Your task to perform on an android device: remove spam from my inbox in the gmail app Image 0: 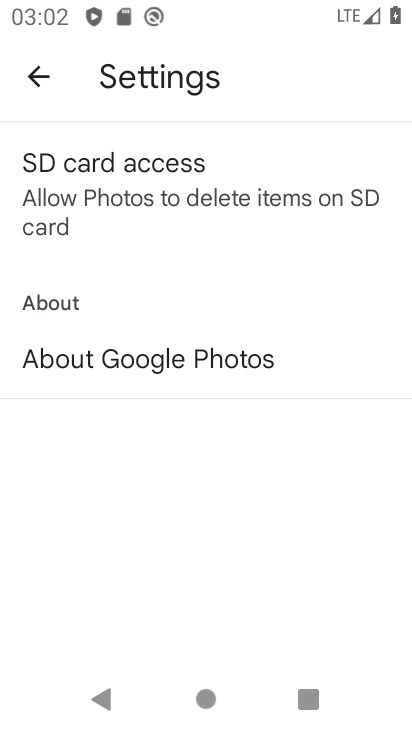
Step 0: press home button
Your task to perform on an android device: remove spam from my inbox in the gmail app Image 1: 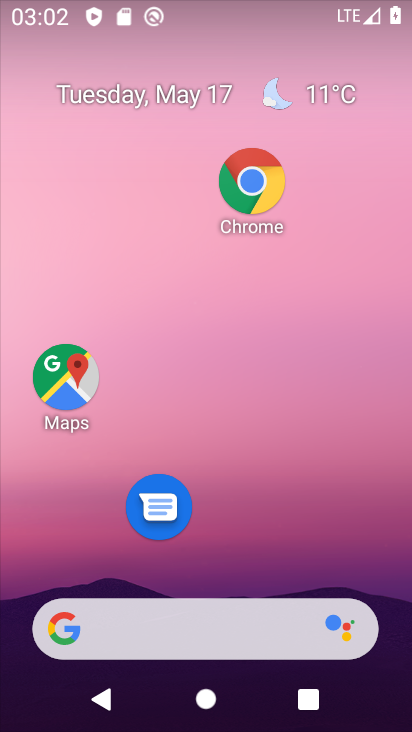
Step 1: drag from (235, 553) to (371, 15)
Your task to perform on an android device: remove spam from my inbox in the gmail app Image 2: 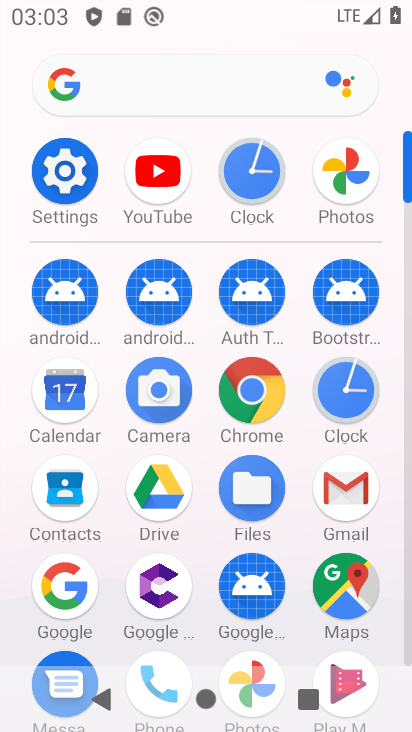
Step 2: click (339, 510)
Your task to perform on an android device: remove spam from my inbox in the gmail app Image 3: 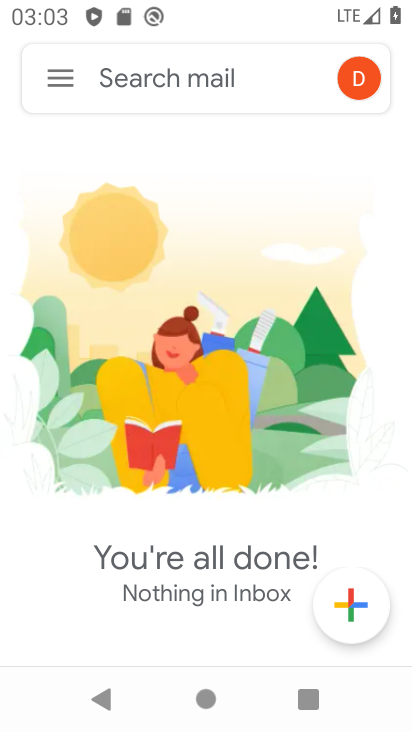
Step 3: click (51, 67)
Your task to perform on an android device: remove spam from my inbox in the gmail app Image 4: 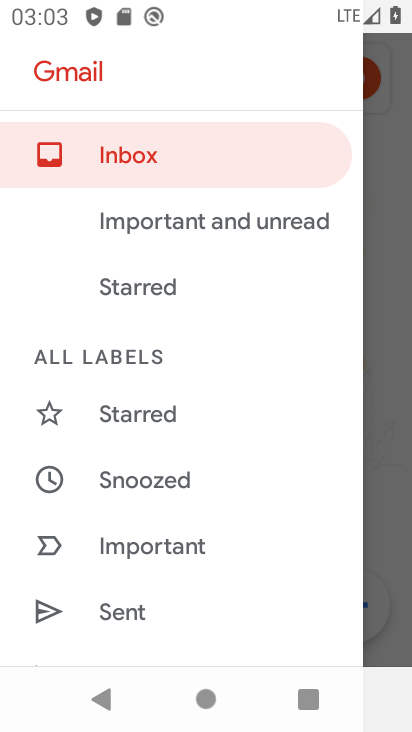
Step 4: drag from (236, 487) to (258, 182)
Your task to perform on an android device: remove spam from my inbox in the gmail app Image 5: 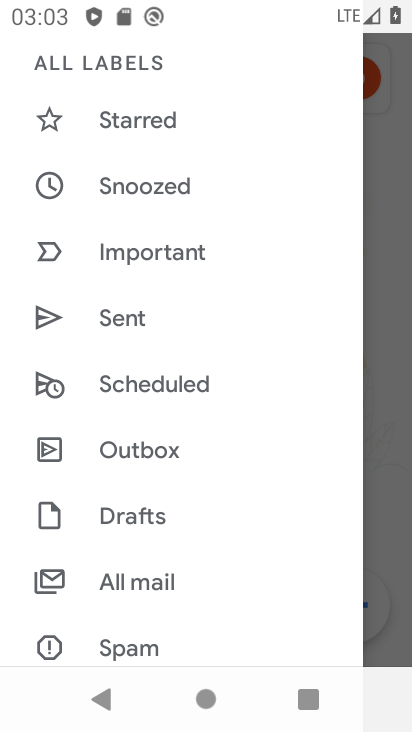
Step 5: click (98, 646)
Your task to perform on an android device: remove spam from my inbox in the gmail app Image 6: 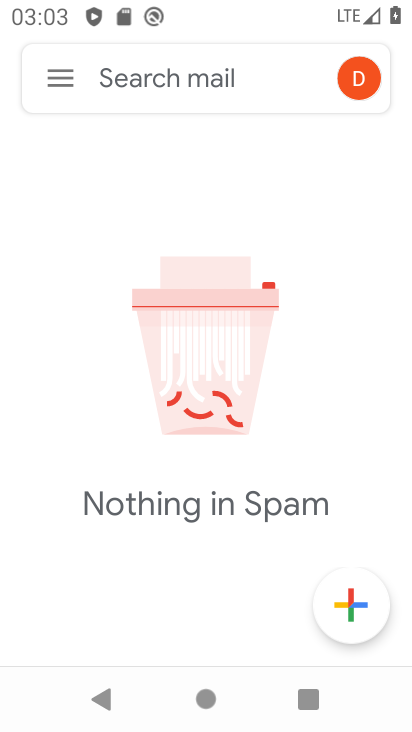
Step 6: task complete